Your task to perform on an android device: Turn on the flashlight Image 0: 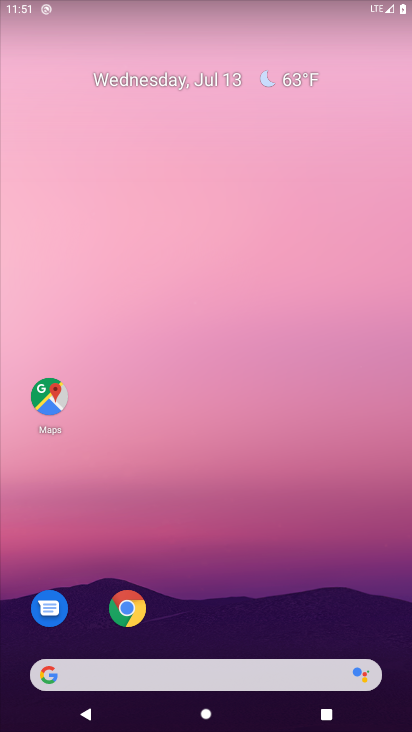
Step 0: task complete